Your task to perform on an android device: Go to Yahoo.com Image 0: 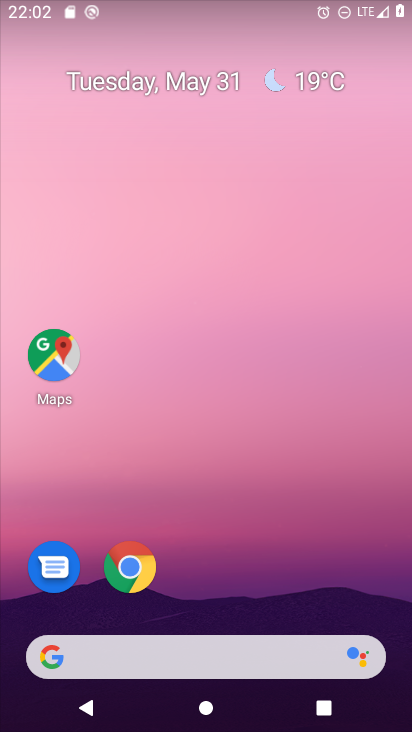
Step 0: click (122, 558)
Your task to perform on an android device: Go to Yahoo.com Image 1: 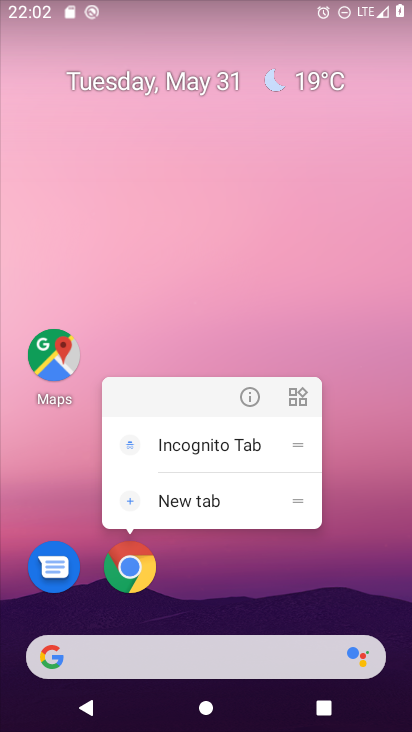
Step 1: click (122, 558)
Your task to perform on an android device: Go to Yahoo.com Image 2: 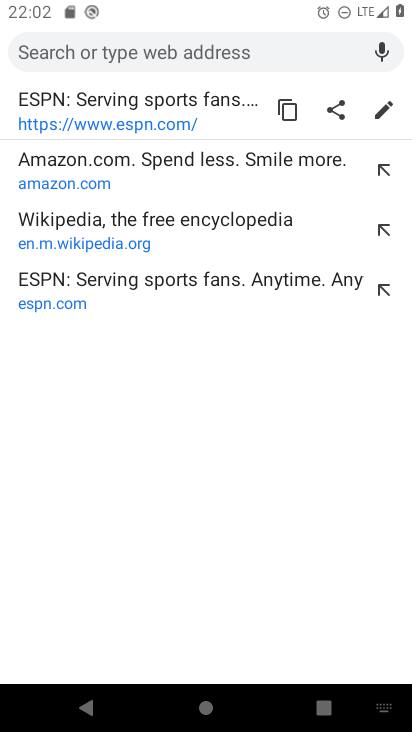
Step 2: click (255, 57)
Your task to perform on an android device: Go to Yahoo.com Image 3: 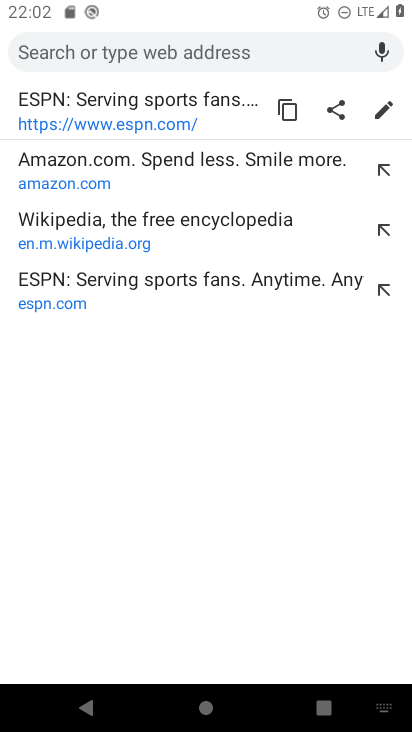
Step 3: press back button
Your task to perform on an android device: Go to Yahoo.com Image 4: 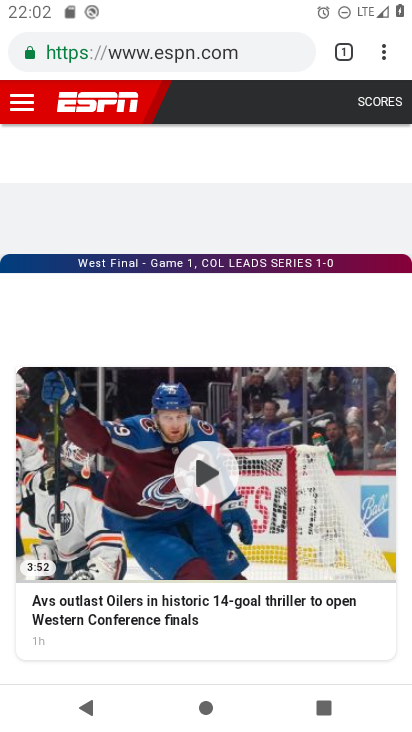
Step 4: click (340, 55)
Your task to perform on an android device: Go to Yahoo.com Image 5: 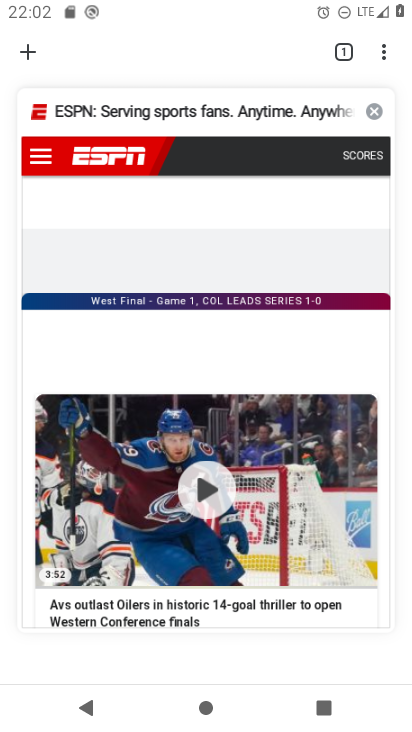
Step 5: click (378, 106)
Your task to perform on an android device: Go to Yahoo.com Image 6: 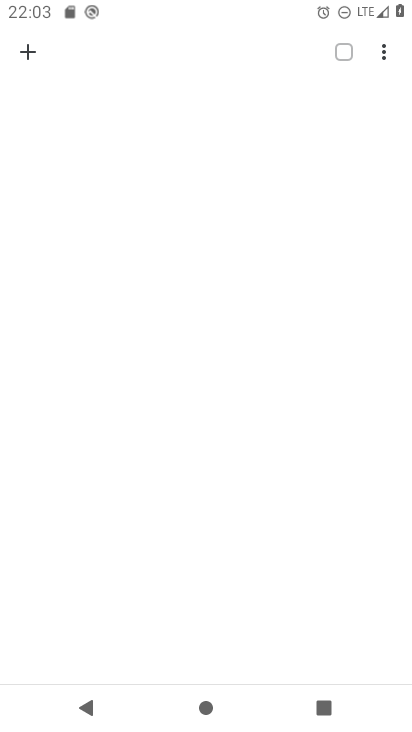
Step 6: click (28, 54)
Your task to perform on an android device: Go to Yahoo.com Image 7: 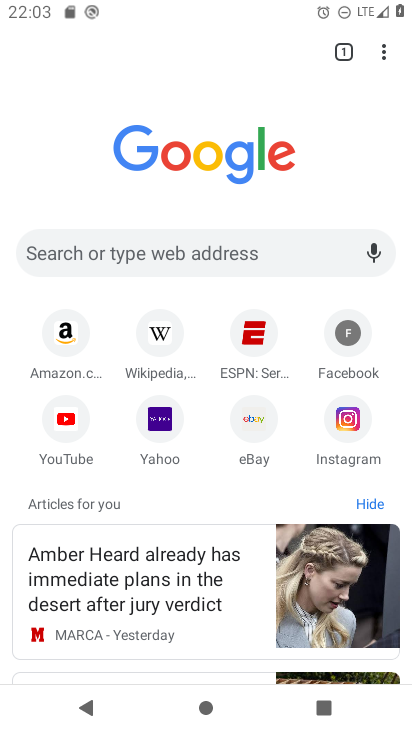
Step 7: click (167, 434)
Your task to perform on an android device: Go to Yahoo.com Image 8: 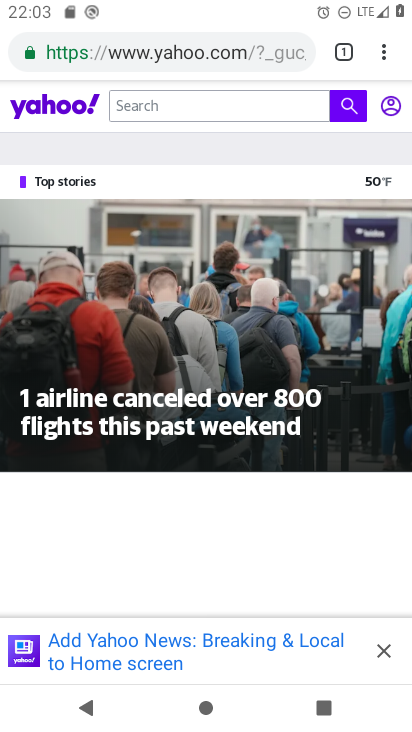
Step 8: task complete